Your task to perform on an android device: turn on sleep mode Image 0: 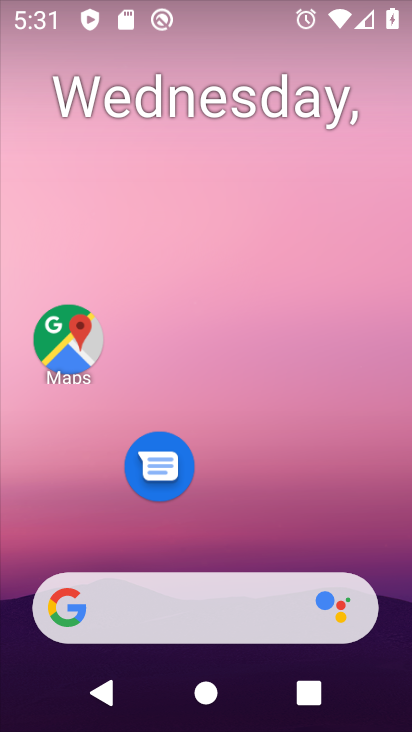
Step 0: drag from (268, 545) to (254, 29)
Your task to perform on an android device: turn on sleep mode Image 1: 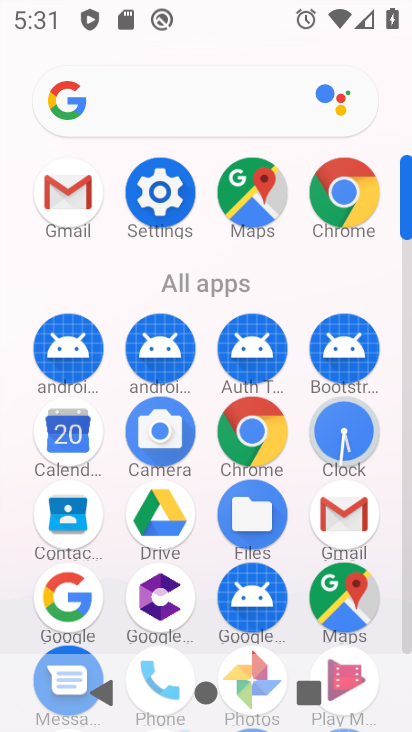
Step 1: click (150, 209)
Your task to perform on an android device: turn on sleep mode Image 2: 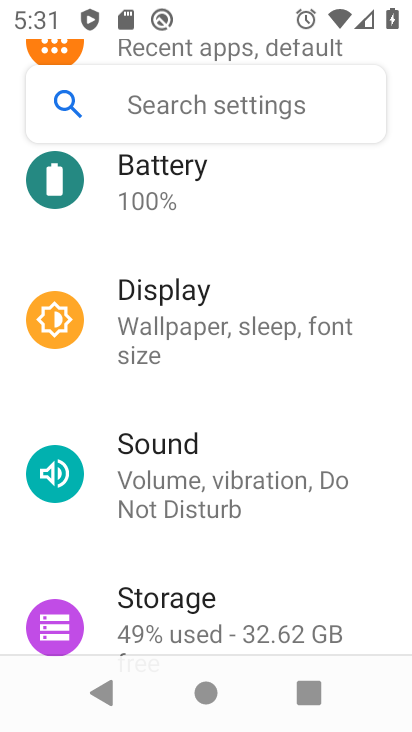
Step 2: click (203, 333)
Your task to perform on an android device: turn on sleep mode Image 3: 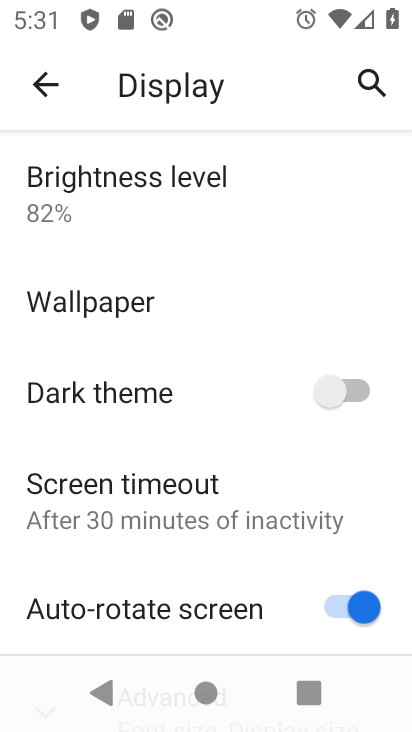
Step 3: click (155, 483)
Your task to perform on an android device: turn on sleep mode Image 4: 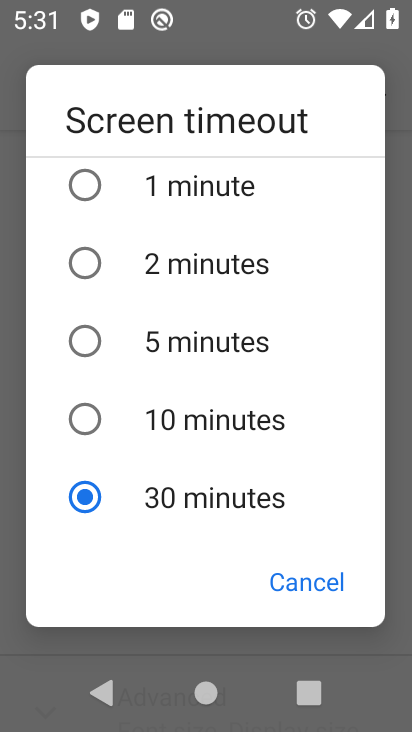
Step 4: task complete